Your task to perform on an android device: Go to Wikipedia Image 0: 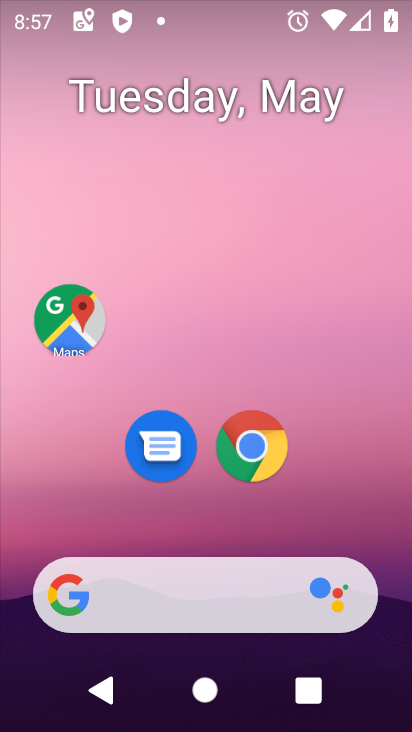
Step 0: drag from (307, 522) to (297, 49)
Your task to perform on an android device: Go to Wikipedia Image 1: 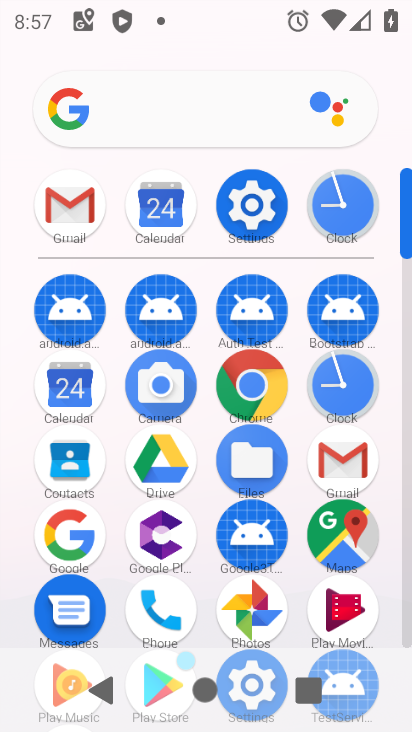
Step 1: click (113, 116)
Your task to perform on an android device: Go to Wikipedia Image 2: 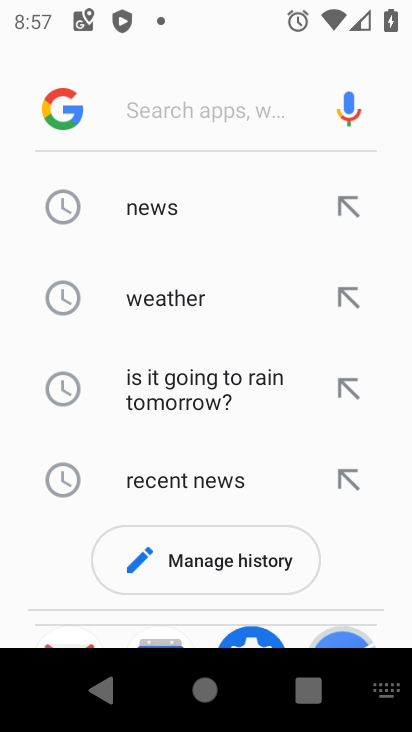
Step 2: type "wikipedia"
Your task to perform on an android device: Go to Wikipedia Image 3: 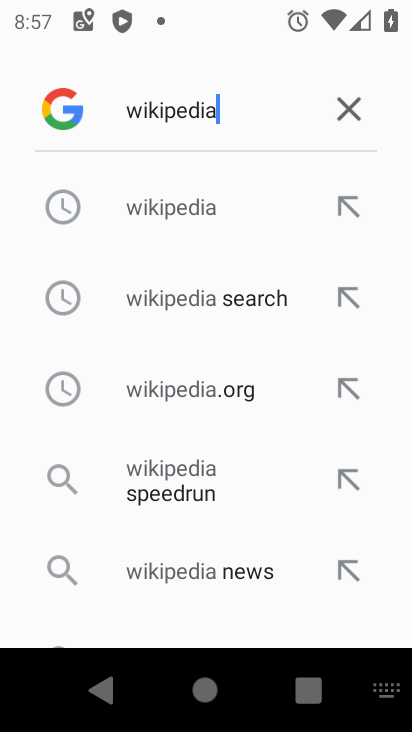
Step 3: click (145, 229)
Your task to perform on an android device: Go to Wikipedia Image 4: 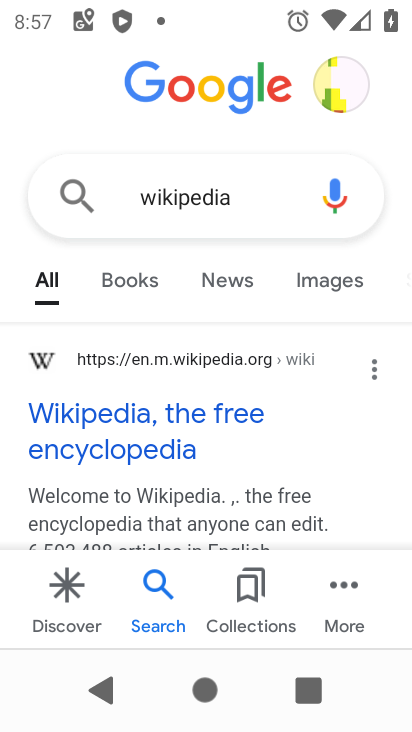
Step 4: click (97, 378)
Your task to perform on an android device: Go to Wikipedia Image 5: 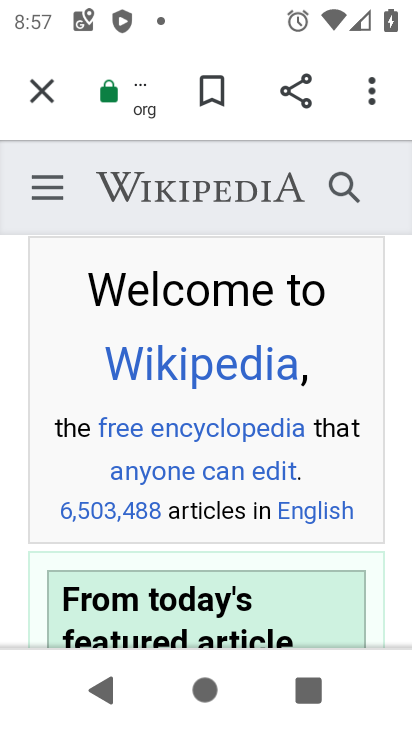
Step 5: task complete